Your task to perform on an android device: toggle translation in the chrome app Image 0: 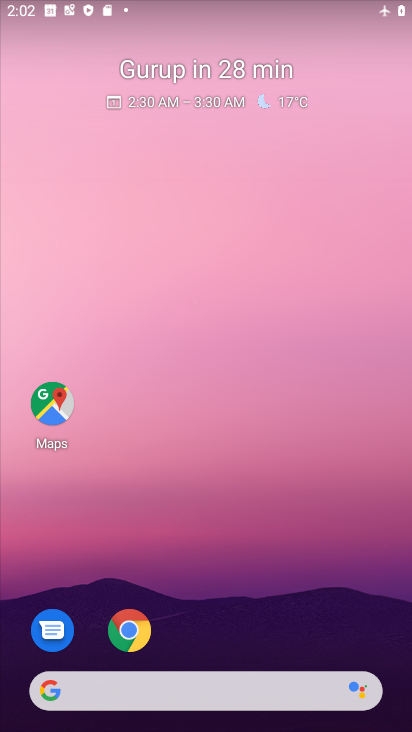
Step 0: click (138, 631)
Your task to perform on an android device: toggle translation in the chrome app Image 1: 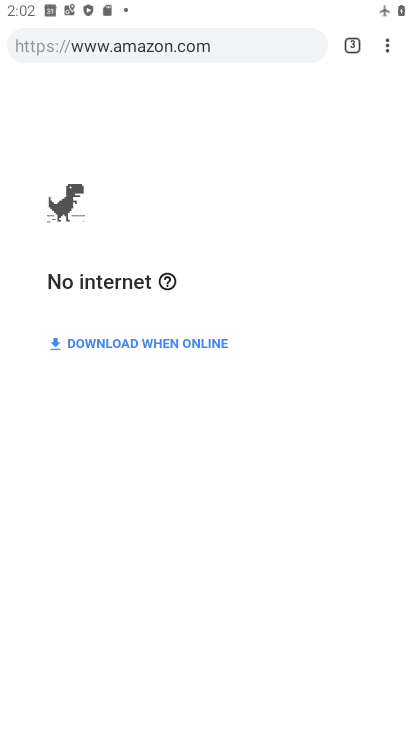
Step 1: click (385, 39)
Your task to perform on an android device: toggle translation in the chrome app Image 2: 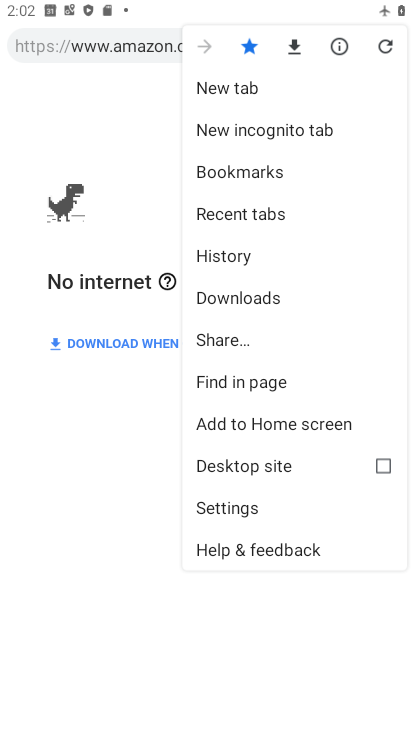
Step 2: click (251, 509)
Your task to perform on an android device: toggle translation in the chrome app Image 3: 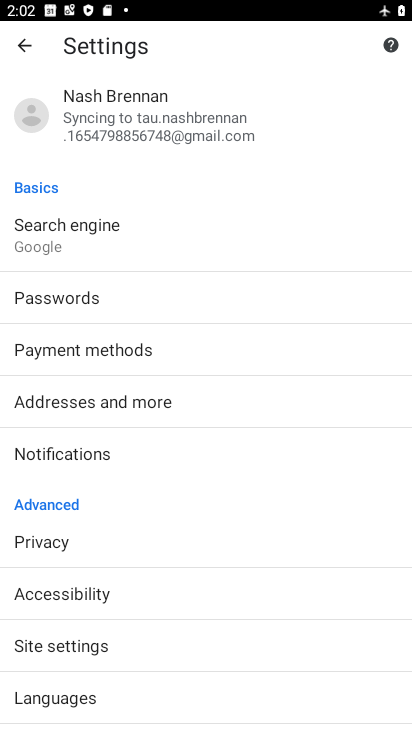
Step 3: click (83, 693)
Your task to perform on an android device: toggle translation in the chrome app Image 4: 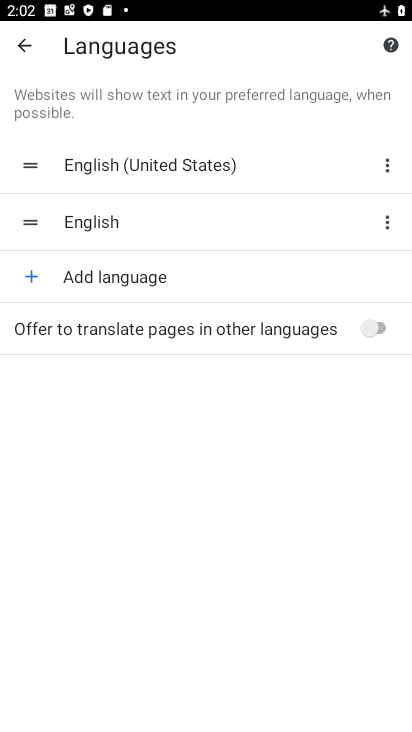
Step 4: click (370, 319)
Your task to perform on an android device: toggle translation in the chrome app Image 5: 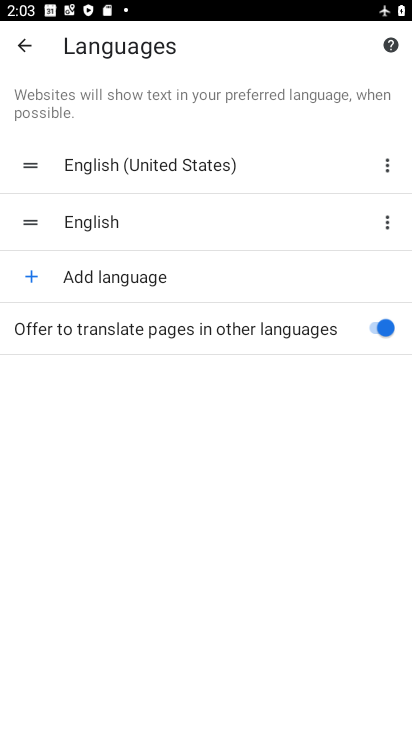
Step 5: task complete